Your task to perform on an android device: turn on location history Image 0: 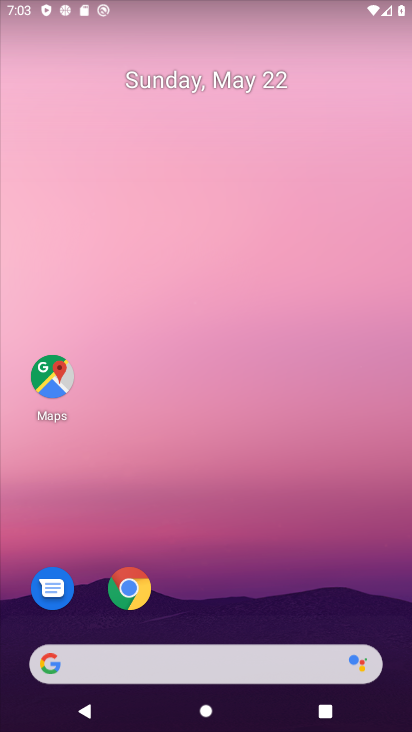
Step 0: click (41, 380)
Your task to perform on an android device: turn on location history Image 1: 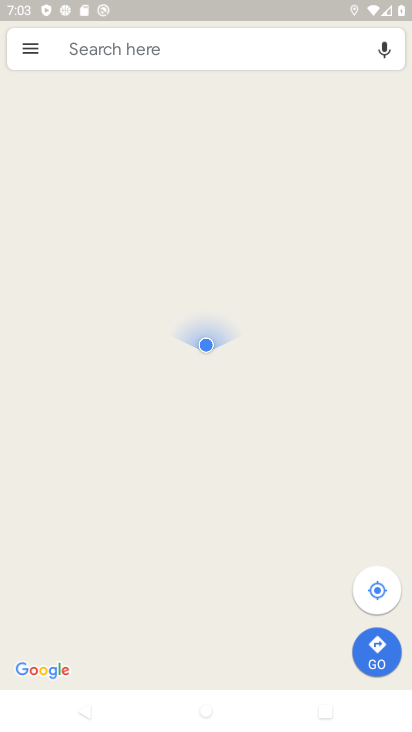
Step 1: click (33, 43)
Your task to perform on an android device: turn on location history Image 2: 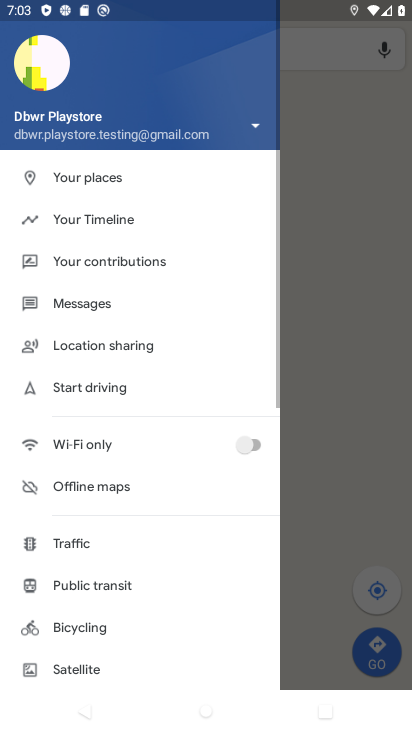
Step 2: click (99, 221)
Your task to perform on an android device: turn on location history Image 3: 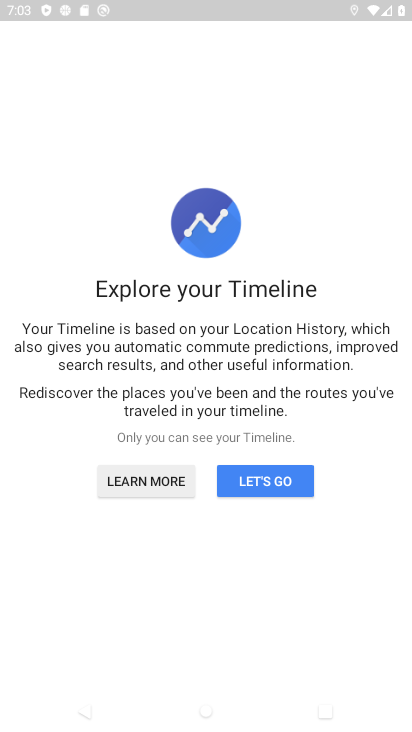
Step 3: click (236, 478)
Your task to perform on an android device: turn on location history Image 4: 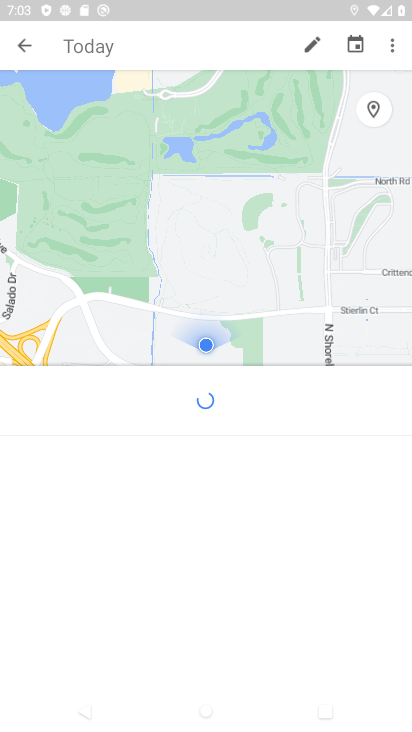
Step 4: click (393, 41)
Your task to perform on an android device: turn on location history Image 5: 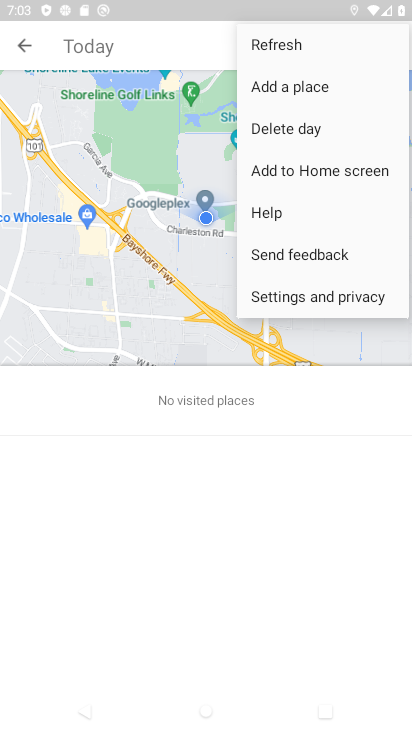
Step 5: click (319, 291)
Your task to perform on an android device: turn on location history Image 6: 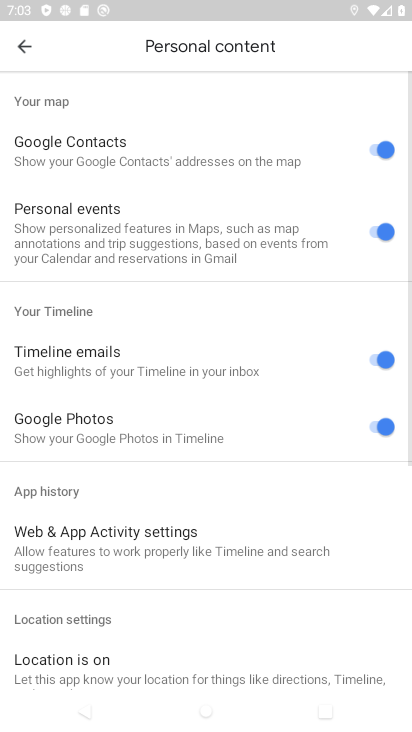
Step 6: drag from (251, 480) to (245, 130)
Your task to perform on an android device: turn on location history Image 7: 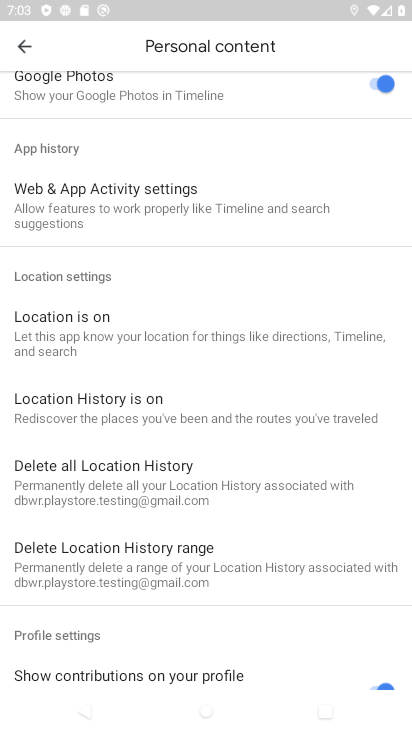
Step 7: click (76, 392)
Your task to perform on an android device: turn on location history Image 8: 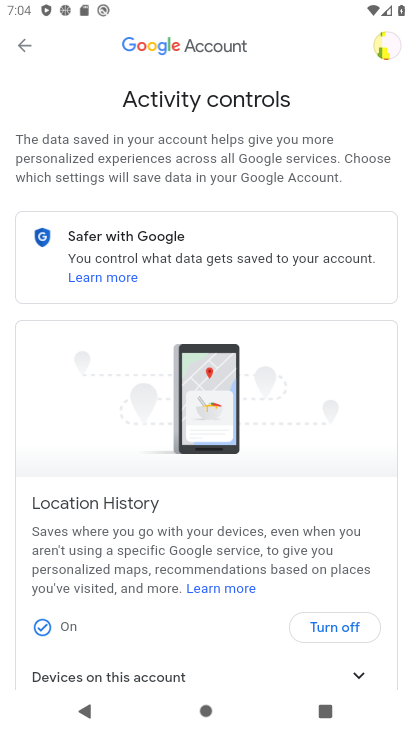
Step 8: task complete